Your task to perform on an android device: toggle sleep mode Image 0: 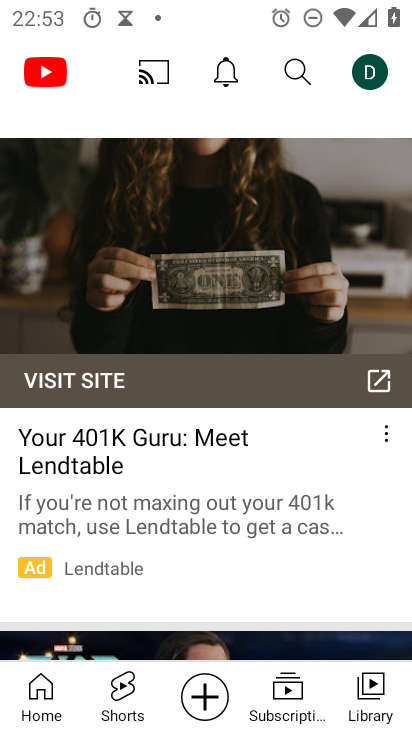
Step 0: press home button
Your task to perform on an android device: toggle sleep mode Image 1: 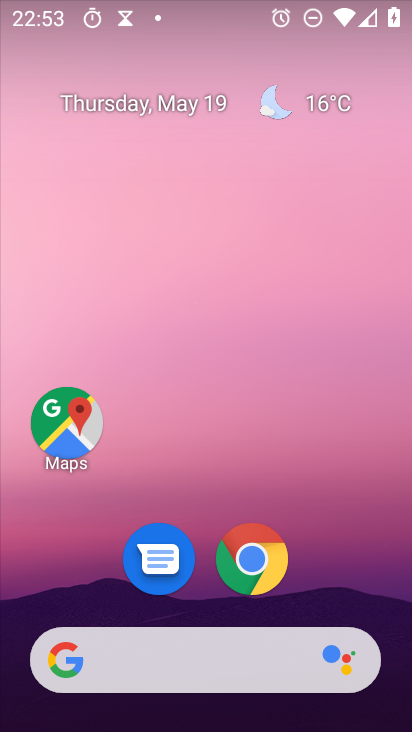
Step 1: drag from (219, 714) to (221, 148)
Your task to perform on an android device: toggle sleep mode Image 2: 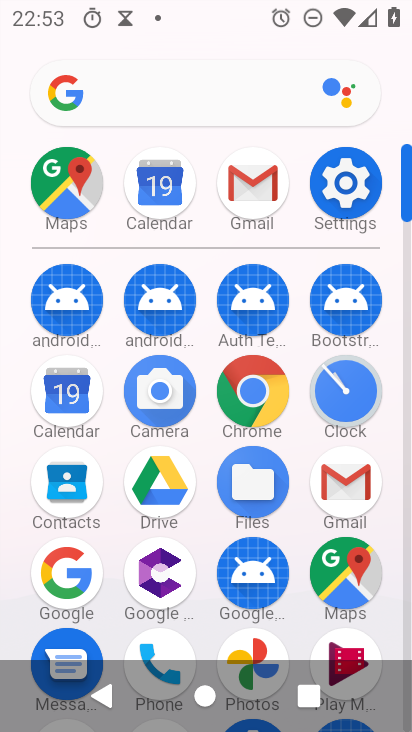
Step 2: click (349, 181)
Your task to perform on an android device: toggle sleep mode Image 3: 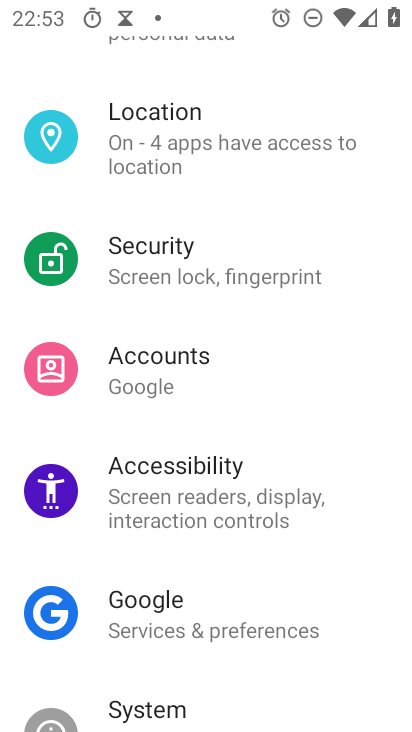
Step 3: drag from (246, 130) to (244, 435)
Your task to perform on an android device: toggle sleep mode Image 4: 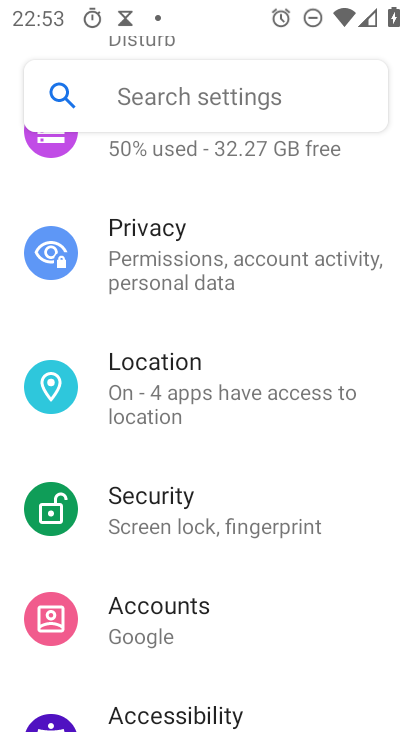
Step 4: drag from (252, 201) to (268, 549)
Your task to perform on an android device: toggle sleep mode Image 5: 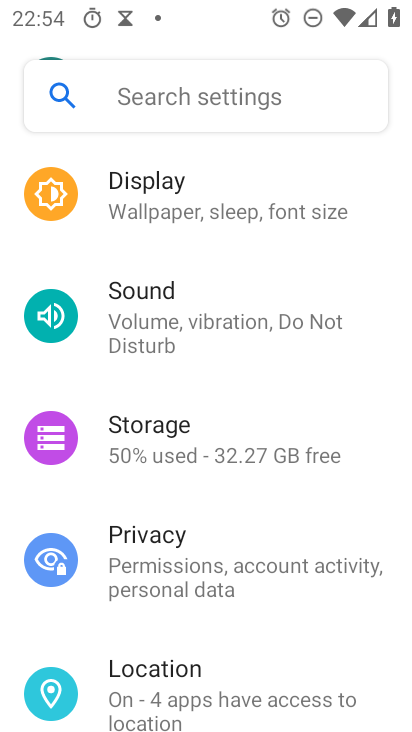
Step 5: drag from (260, 272) to (253, 504)
Your task to perform on an android device: toggle sleep mode Image 6: 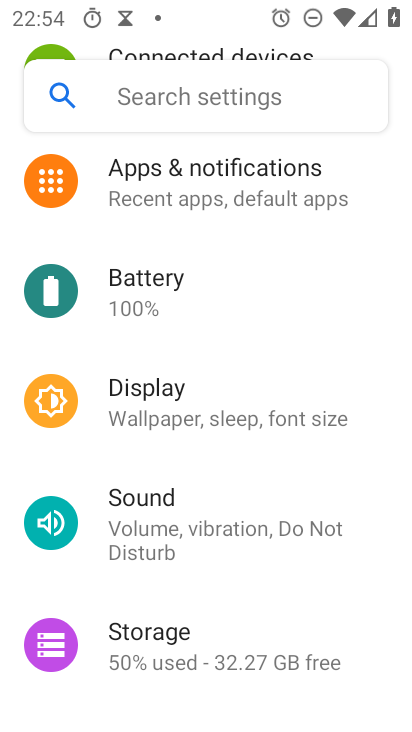
Step 6: drag from (240, 227) to (220, 540)
Your task to perform on an android device: toggle sleep mode Image 7: 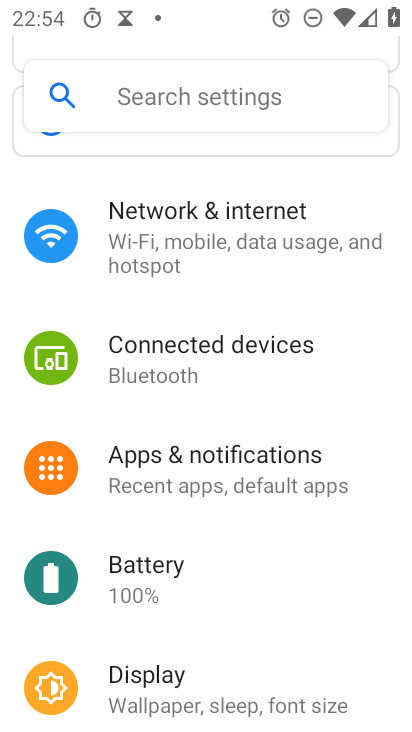
Step 7: click (225, 701)
Your task to perform on an android device: toggle sleep mode Image 8: 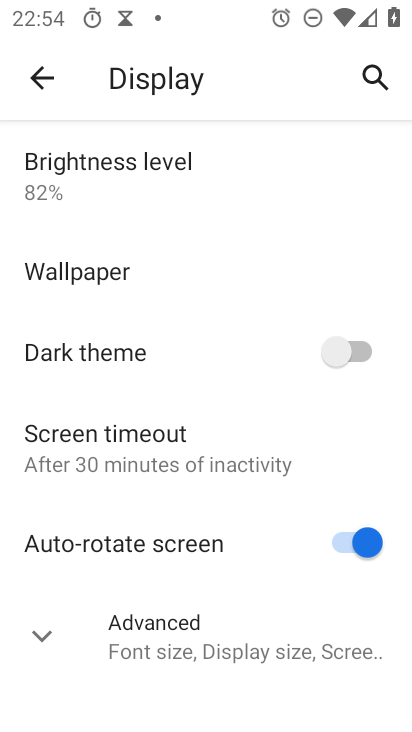
Step 8: click (42, 76)
Your task to perform on an android device: toggle sleep mode Image 9: 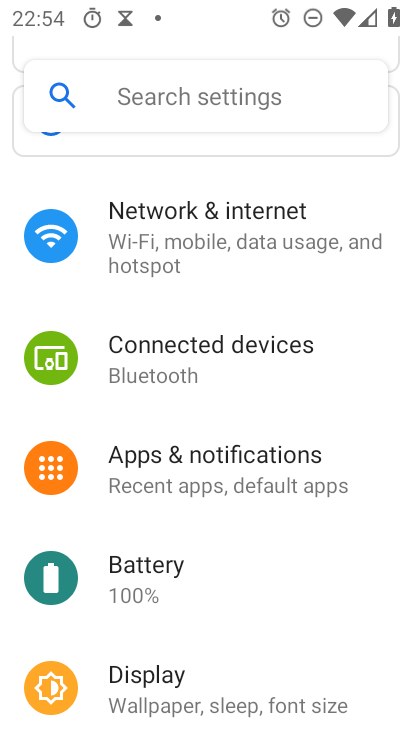
Step 9: task complete